Your task to perform on an android device: What's the news about the US economy? Image 0: 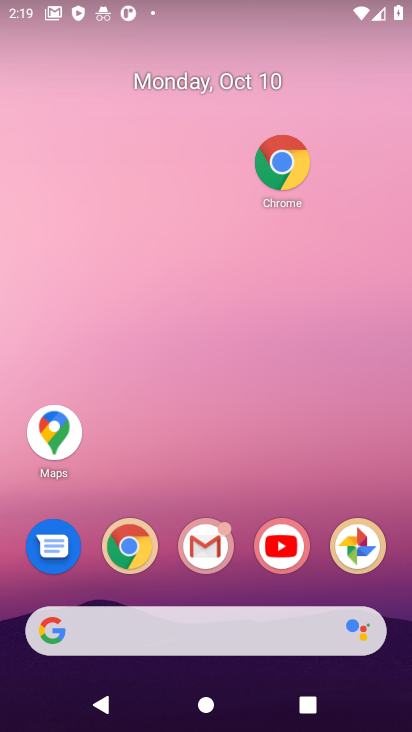
Step 0: click (126, 566)
Your task to perform on an android device: What's the news about the US economy? Image 1: 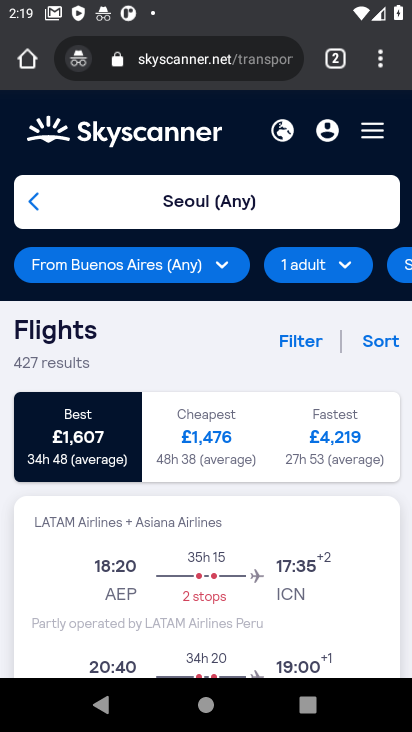
Step 1: click (157, 64)
Your task to perform on an android device: What's the news about the US economy? Image 2: 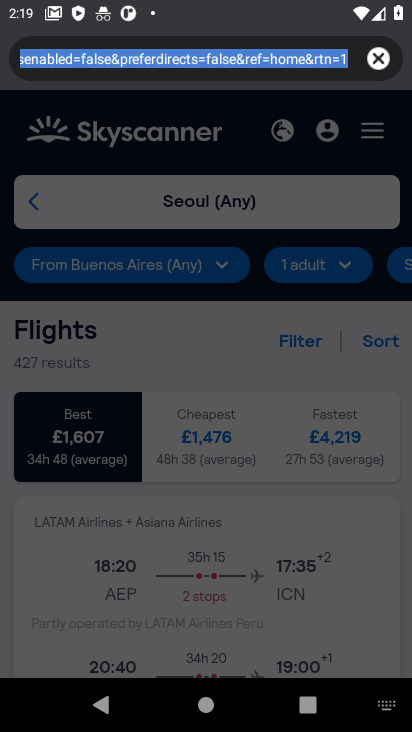
Step 2: type "What's the news about the US economy?"
Your task to perform on an android device: What's the news about the US economy? Image 3: 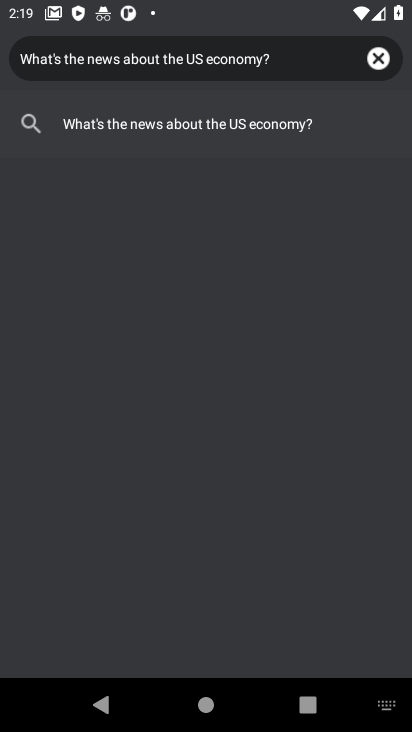
Step 3: click (262, 113)
Your task to perform on an android device: What's the news about the US economy? Image 4: 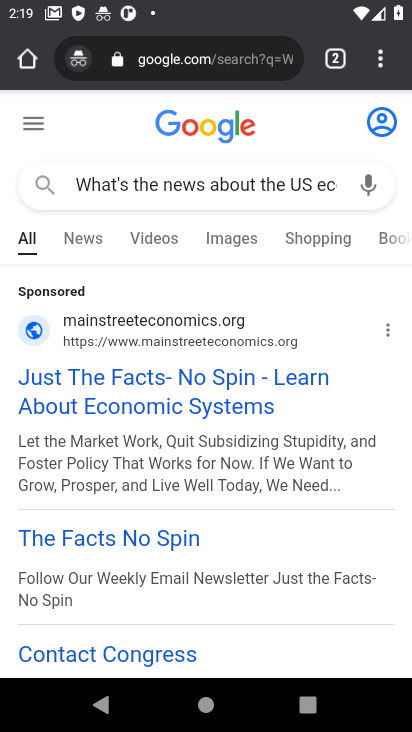
Step 4: click (81, 227)
Your task to perform on an android device: What's the news about the US economy? Image 5: 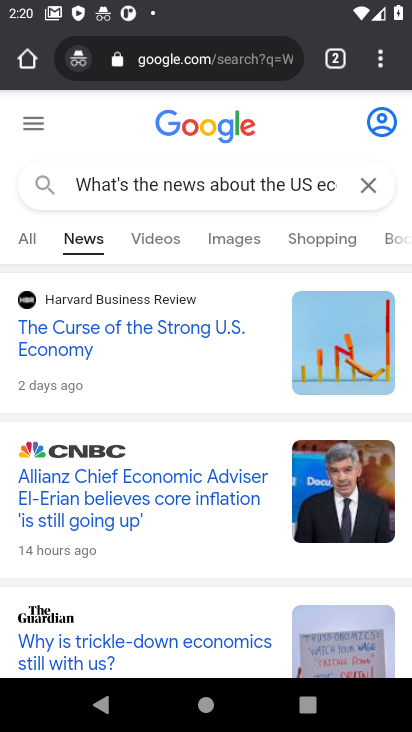
Step 5: task complete